Your task to perform on an android device: turn on wifi Image 0: 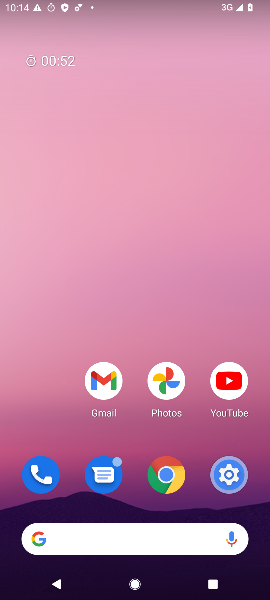
Step 0: click (233, 478)
Your task to perform on an android device: turn on wifi Image 1: 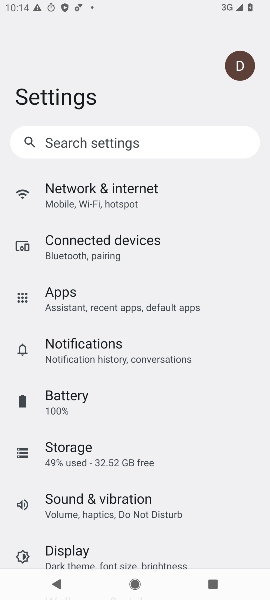
Step 1: click (103, 198)
Your task to perform on an android device: turn on wifi Image 2: 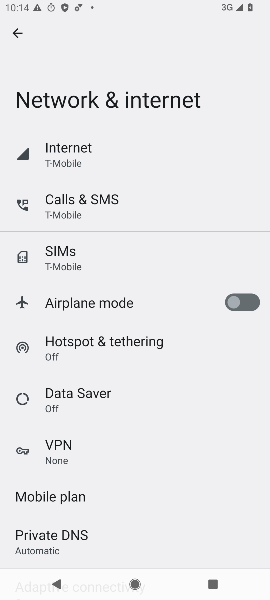
Step 2: click (76, 157)
Your task to perform on an android device: turn on wifi Image 3: 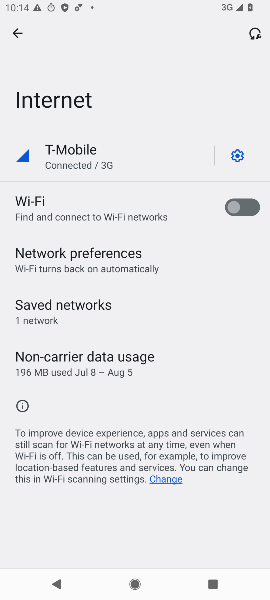
Step 3: click (255, 211)
Your task to perform on an android device: turn on wifi Image 4: 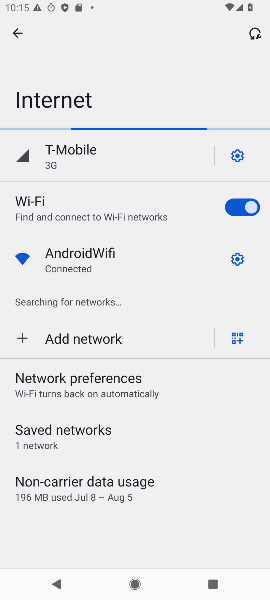
Step 4: task complete